Your task to perform on an android device: Check the news Image 0: 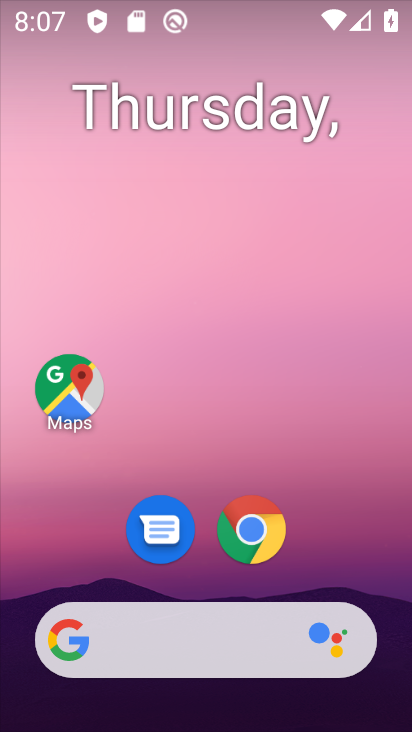
Step 0: press home button
Your task to perform on an android device: Check the news Image 1: 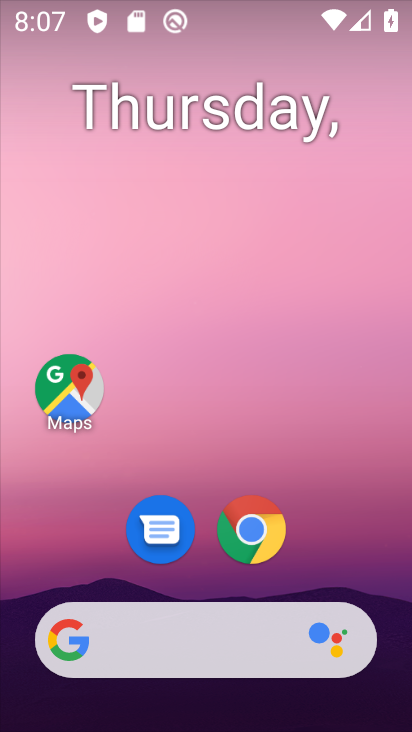
Step 1: click (84, 646)
Your task to perform on an android device: Check the news Image 2: 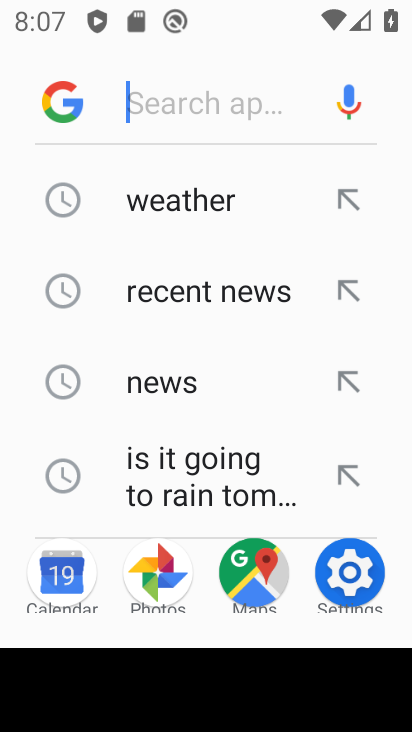
Step 2: click (176, 381)
Your task to perform on an android device: Check the news Image 3: 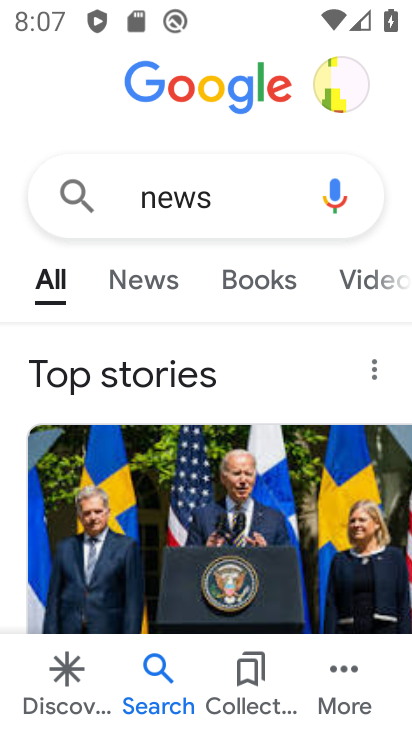
Step 3: click (141, 288)
Your task to perform on an android device: Check the news Image 4: 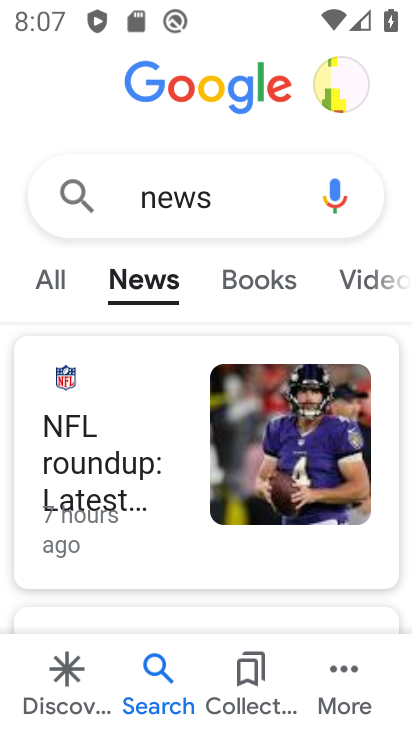
Step 4: task complete